Your task to perform on an android device: Open calendar and show me the third week of next month Image 0: 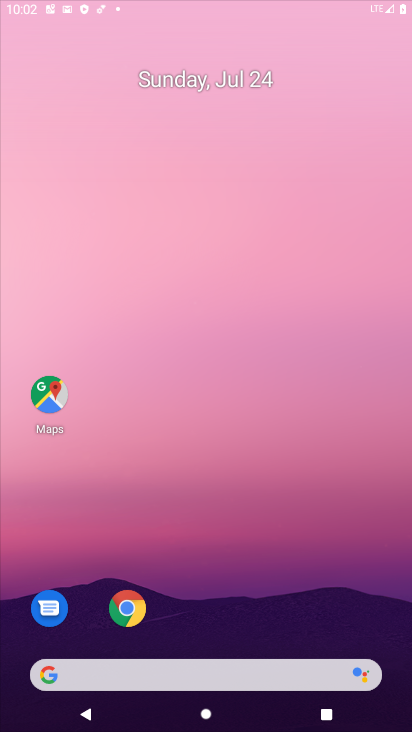
Step 0: press home button
Your task to perform on an android device: Open calendar and show me the third week of next month Image 1: 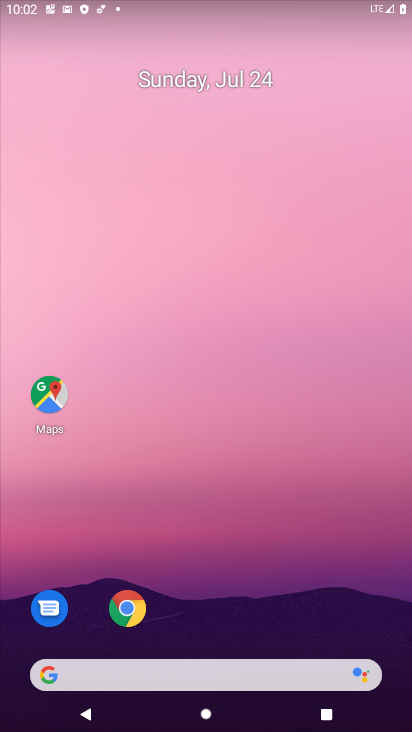
Step 1: drag from (220, 646) to (248, 1)
Your task to perform on an android device: Open calendar and show me the third week of next month Image 2: 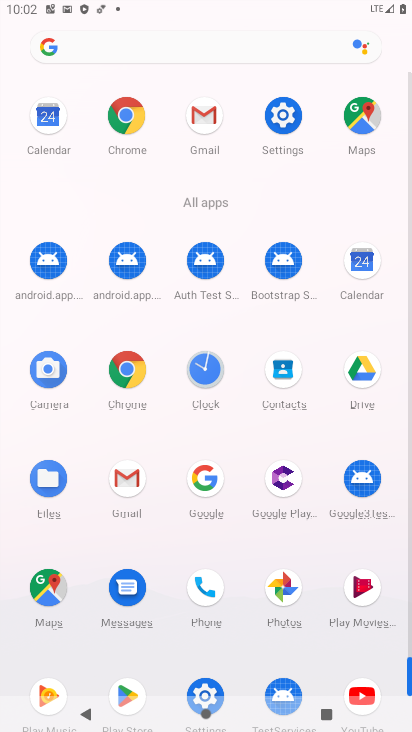
Step 2: click (359, 256)
Your task to perform on an android device: Open calendar and show me the third week of next month Image 3: 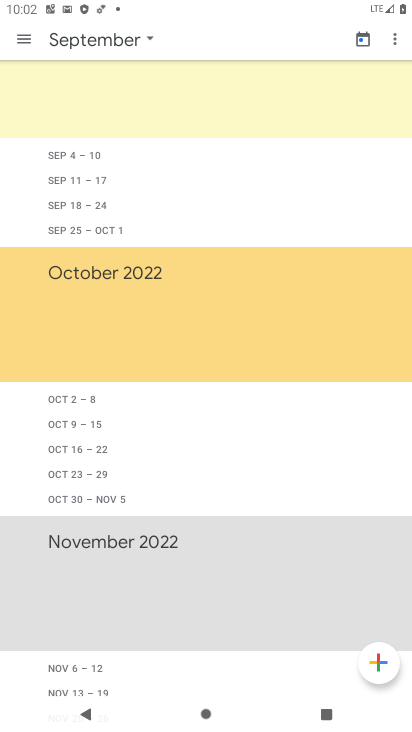
Step 3: click (25, 40)
Your task to perform on an android device: Open calendar and show me the third week of next month Image 4: 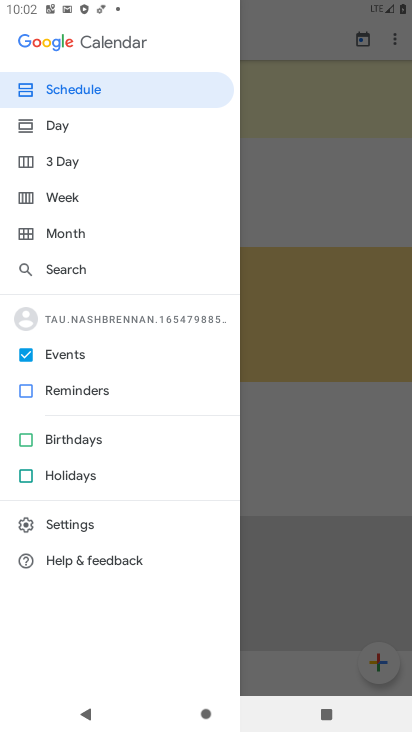
Step 4: click (91, 195)
Your task to perform on an android device: Open calendar and show me the third week of next month Image 5: 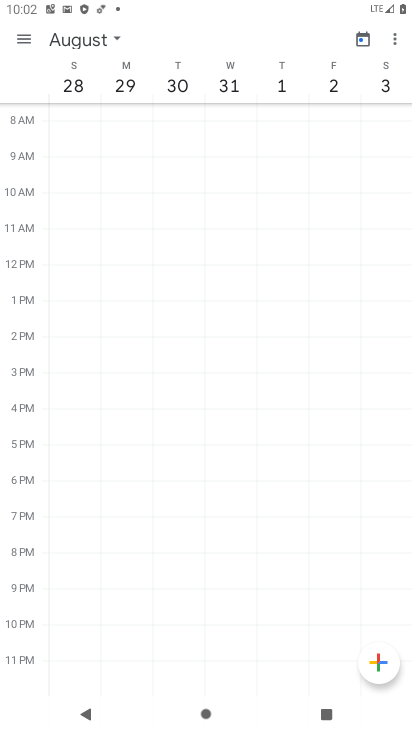
Step 5: drag from (80, 81) to (375, 72)
Your task to perform on an android device: Open calendar and show me the third week of next month Image 6: 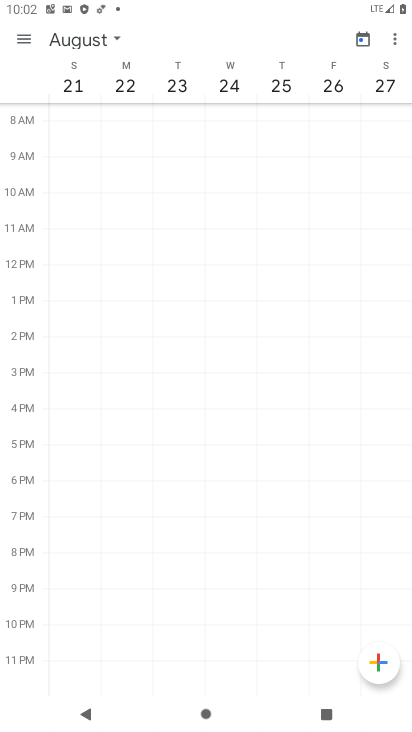
Step 6: drag from (79, 87) to (411, 71)
Your task to perform on an android device: Open calendar and show me the third week of next month Image 7: 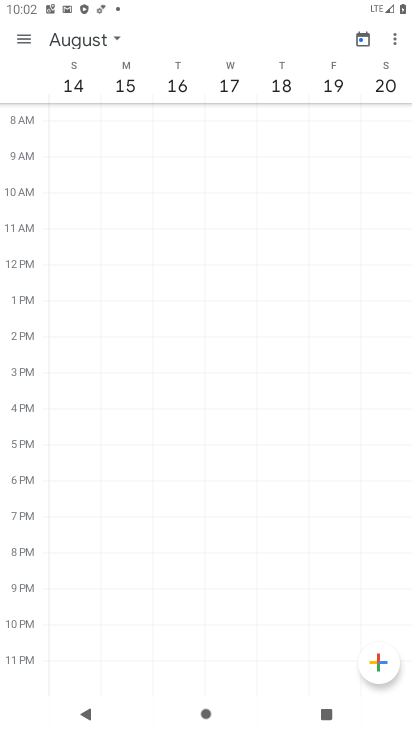
Step 7: click (88, 84)
Your task to perform on an android device: Open calendar and show me the third week of next month Image 8: 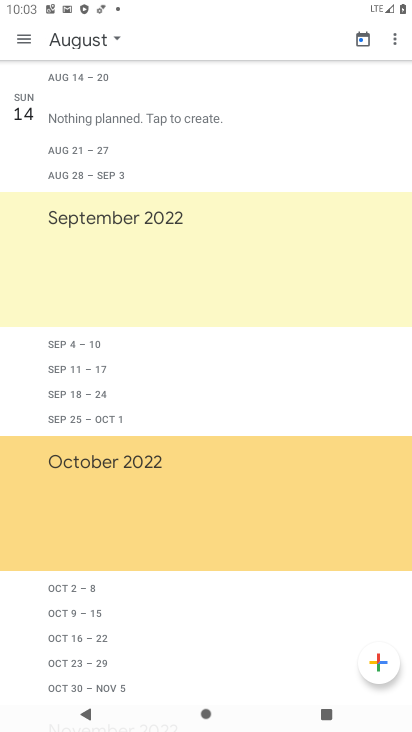
Step 8: task complete